Your task to perform on an android device: Open the calendar and show me this week's events? Image 0: 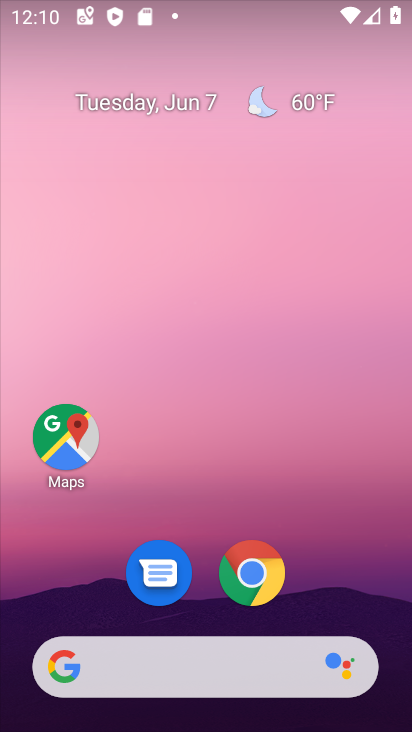
Step 0: drag from (334, 646) to (302, 3)
Your task to perform on an android device: Open the calendar and show me this week's events? Image 1: 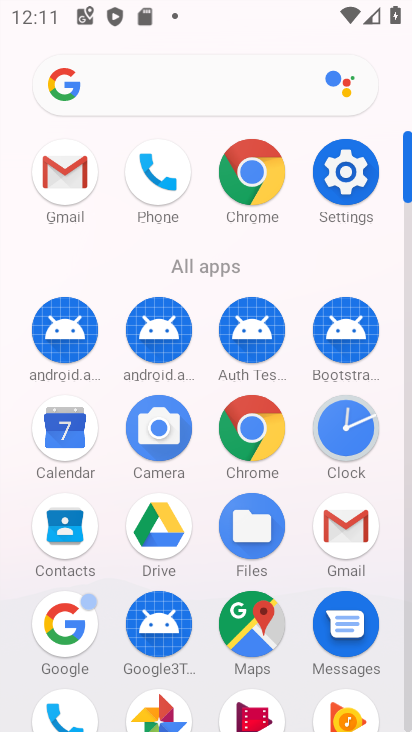
Step 1: click (51, 436)
Your task to perform on an android device: Open the calendar and show me this week's events? Image 2: 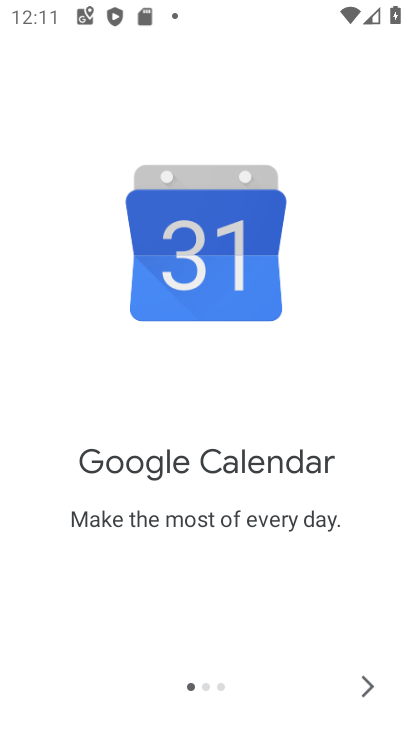
Step 2: click (372, 682)
Your task to perform on an android device: Open the calendar and show me this week's events? Image 3: 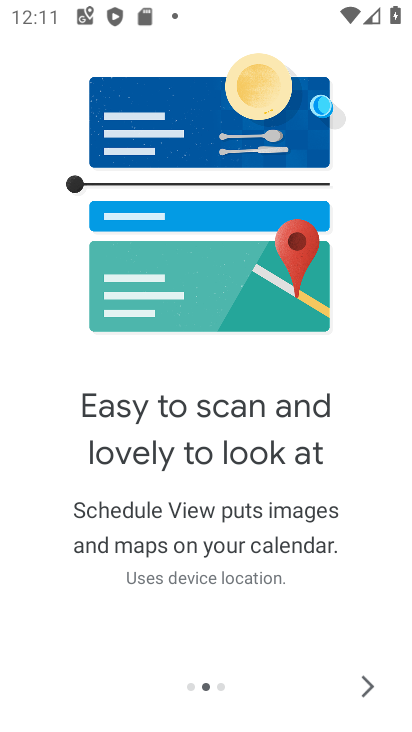
Step 3: click (358, 690)
Your task to perform on an android device: Open the calendar and show me this week's events? Image 4: 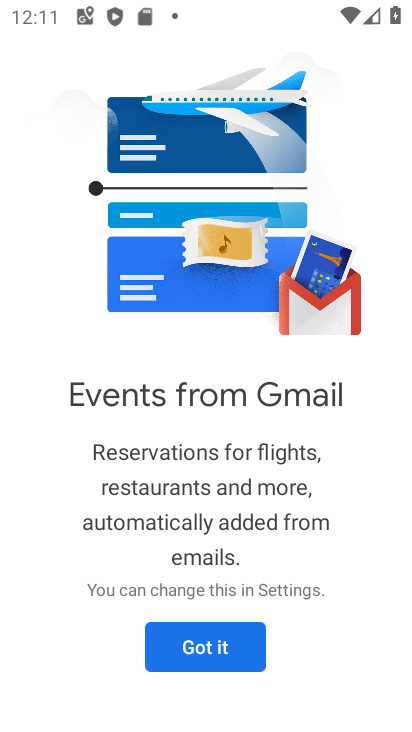
Step 4: click (206, 651)
Your task to perform on an android device: Open the calendar and show me this week's events? Image 5: 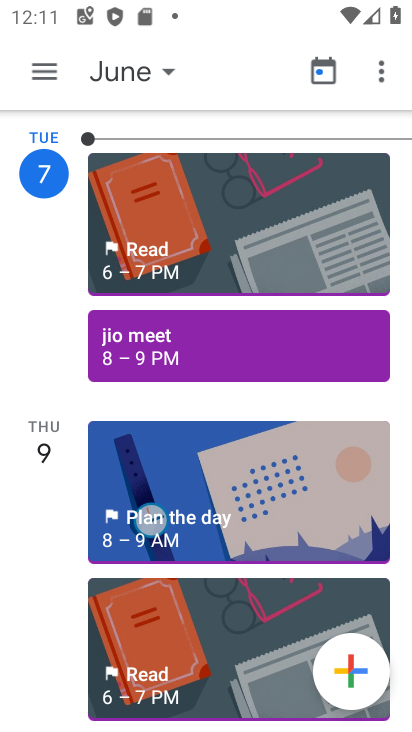
Step 5: click (150, 74)
Your task to perform on an android device: Open the calendar and show me this week's events? Image 6: 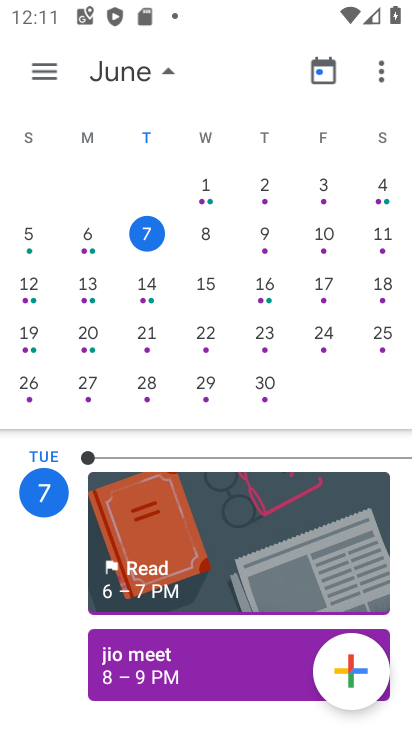
Step 6: click (392, 240)
Your task to perform on an android device: Open the calendar and show me this week's events? Image 7: 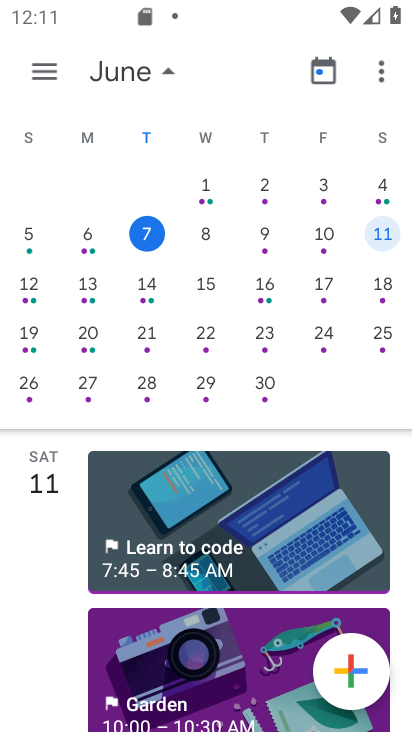
Step 7: task complete